Your task to perform on an android device: turn off airplane mode Image 0: 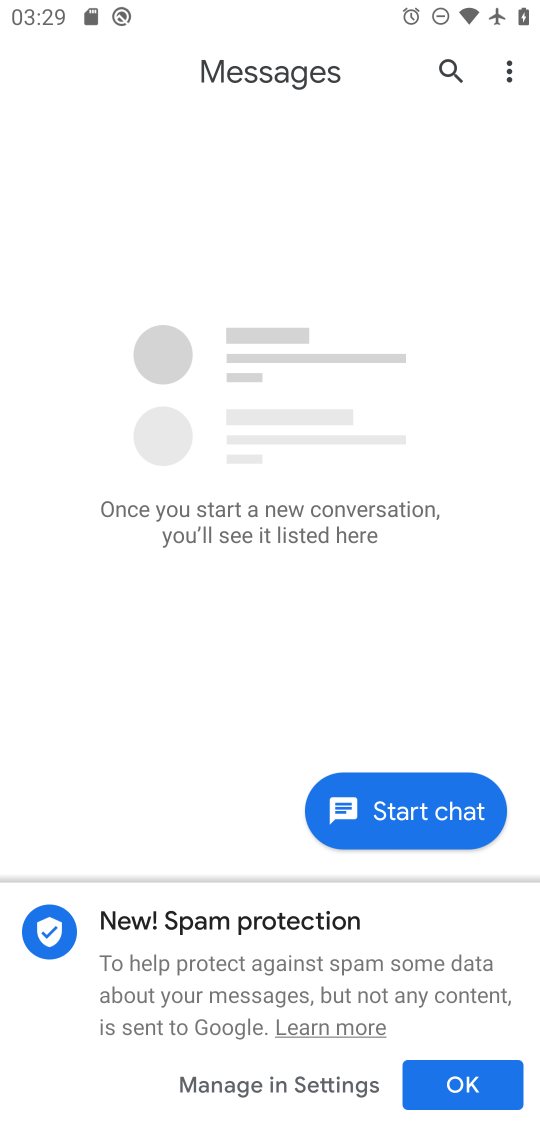
Step 0: press back button
Your task to perform on an android device: turn off airplane mode Image 1: 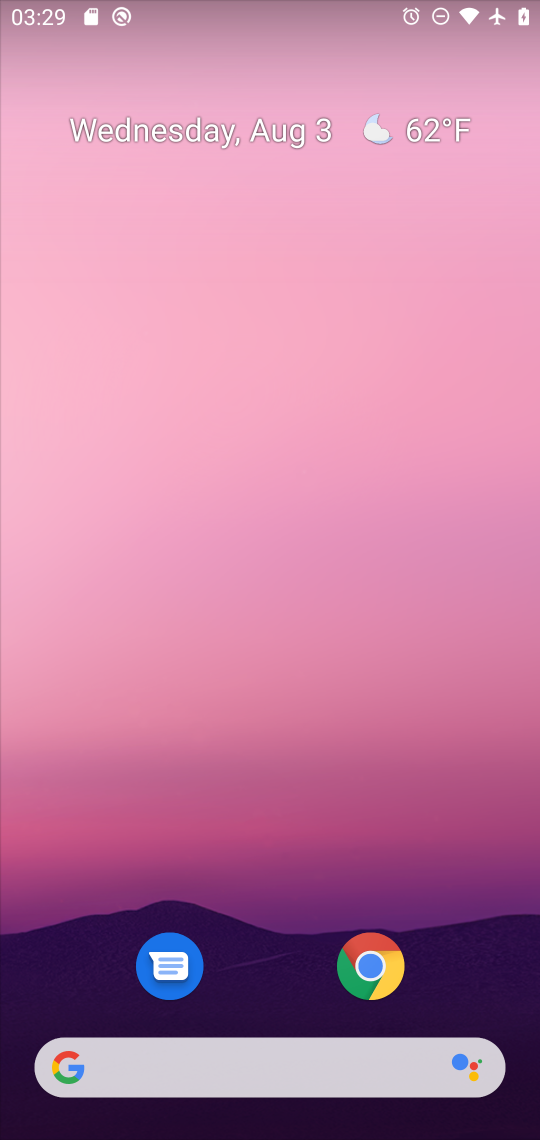
Step 1: drag from (277, 934) to (276, 406)
Your task to perform on an android device: turn off airplane mode Image 2: 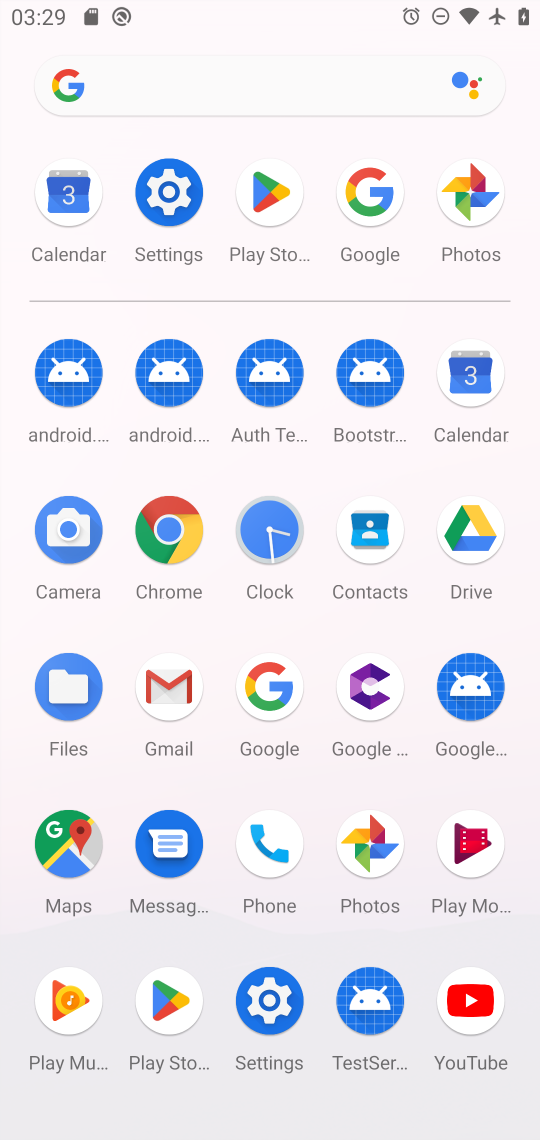
Step 2: click (200, 210)
Your task to perform on an android device: turn off airplane mode Image 3: 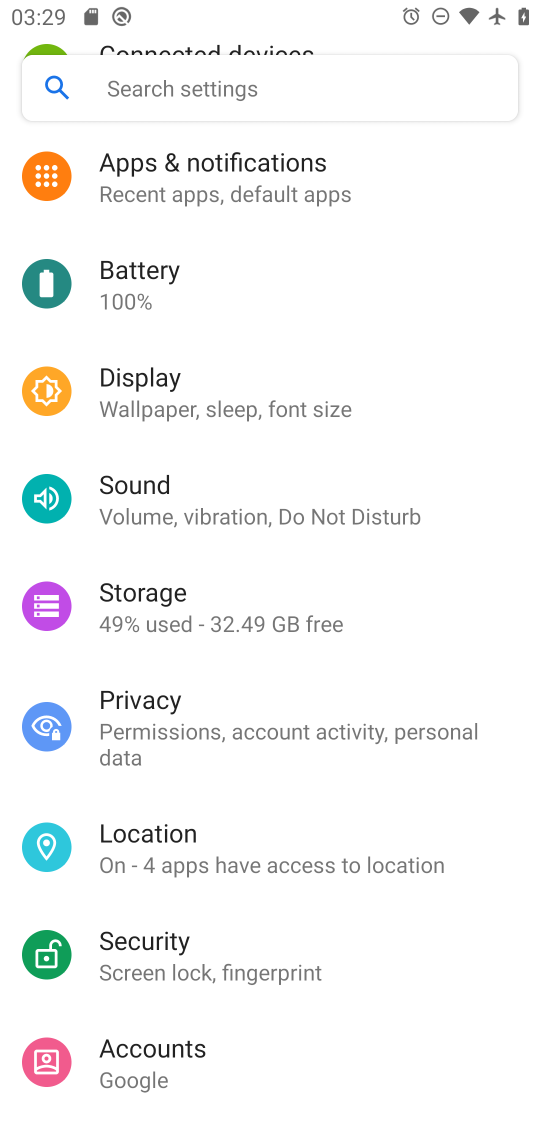
Step 3: drag from (200, 210) to (289, 738)
Your task to perform on an android device: turn off airplane mode Image 4: 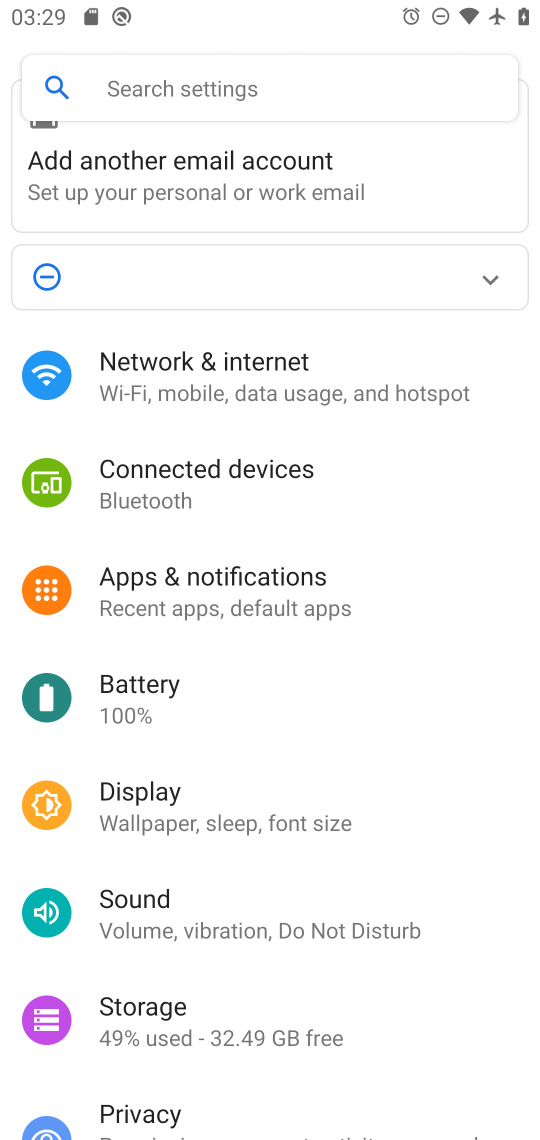
Step 4: click (267, 369)
Your task to perform on an android device: turn off airplane mode Image 5: 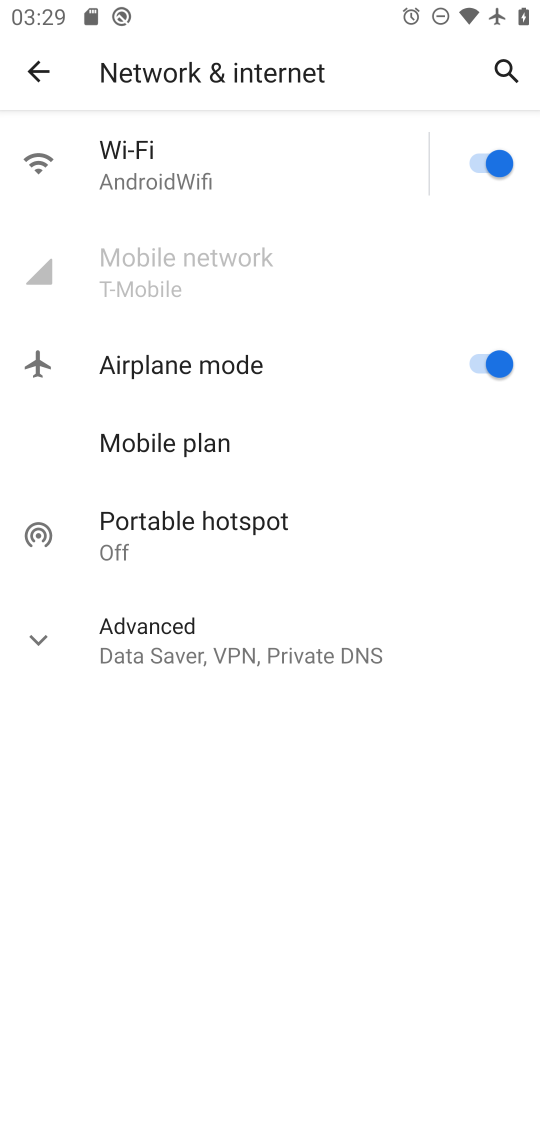
Step 5: click (489, 351)
Your task to perform on an android device: turn off airplane mode Image 6: 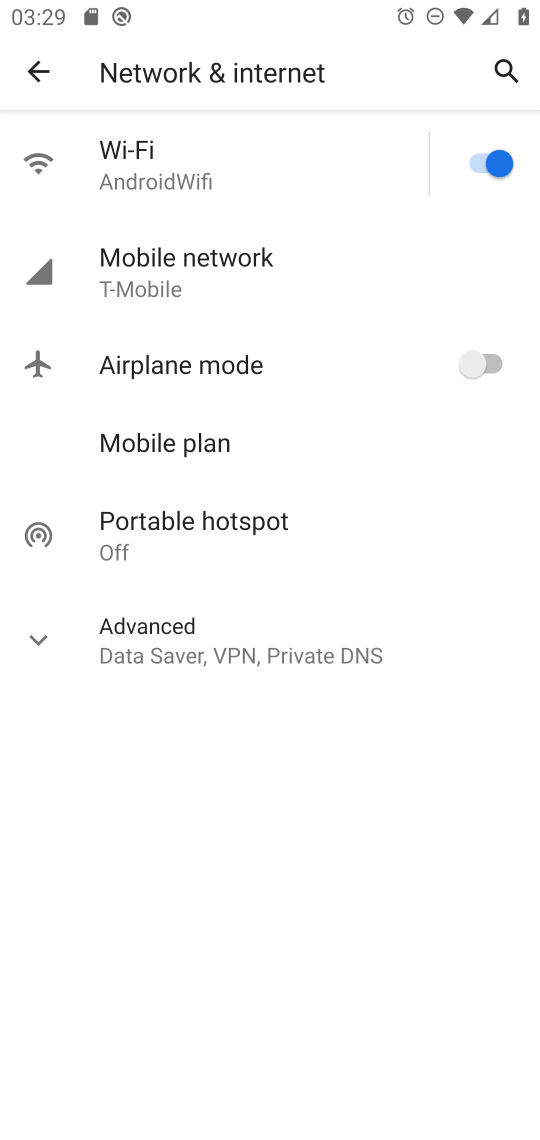
Step 6: task complete